Your task to perform on an android device: Open Chrome and go to the settings page Image 0: 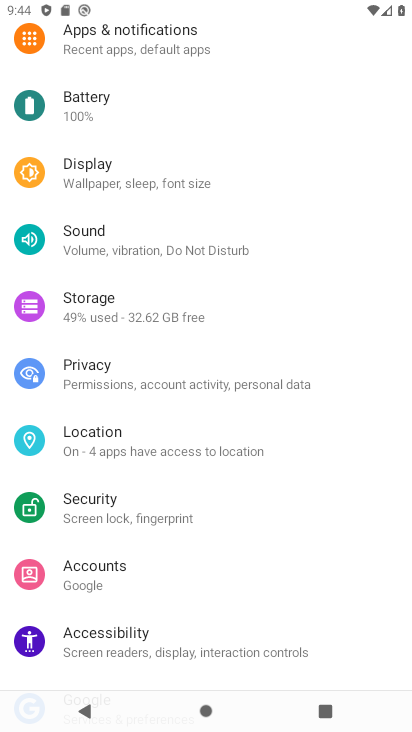
Step 0: press home button
Your task to perform on an android device: Open Chrome and go to the settings page Image 1: 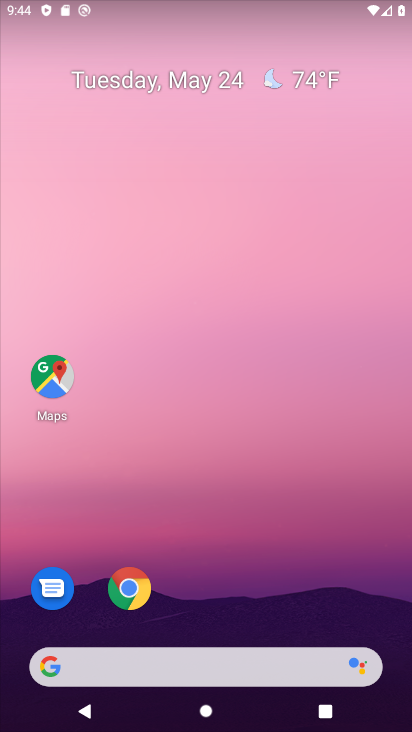
Step 1: click (143, 580)
Your task to perform on an android device: Open Chrome and go to the settings page Image 2: 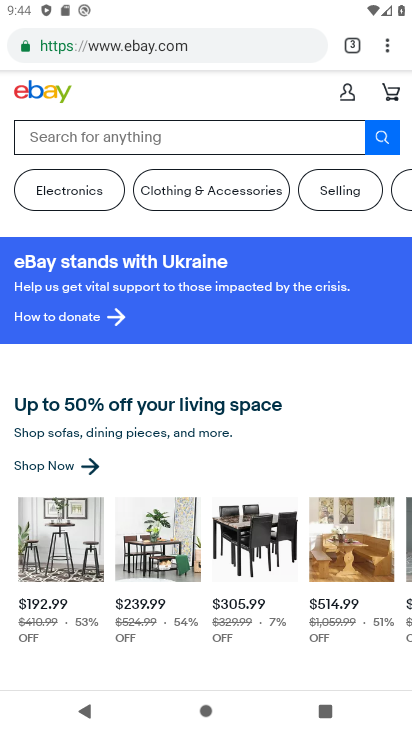
Step 2: click (383, 48)
Your task to perform on an android device: Open Chrome and go to the settings page Image 3: 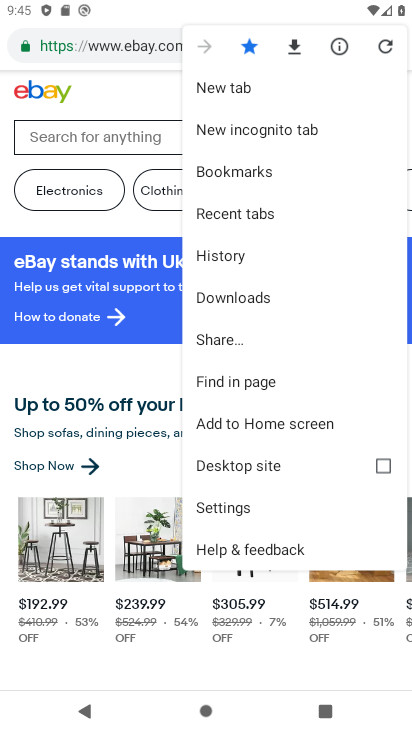
Step 3: click (247, 502)
Your task to perform on an android device: Open Chrome and go to the settings page Image 4: 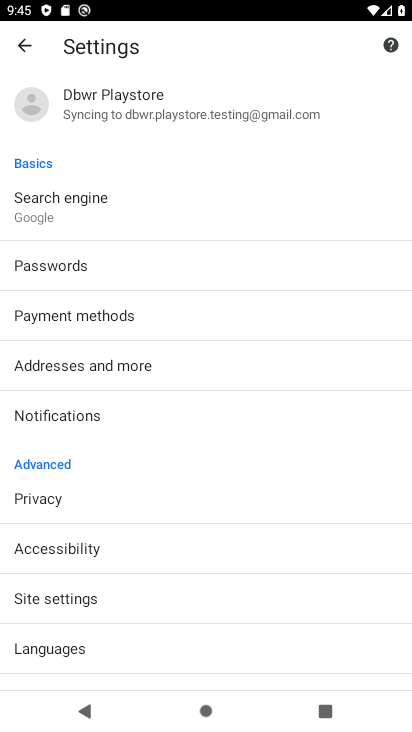
Step 4: task complete